Your task to perform on an android device: open app "Grab" (install if not already installed) Image 0: 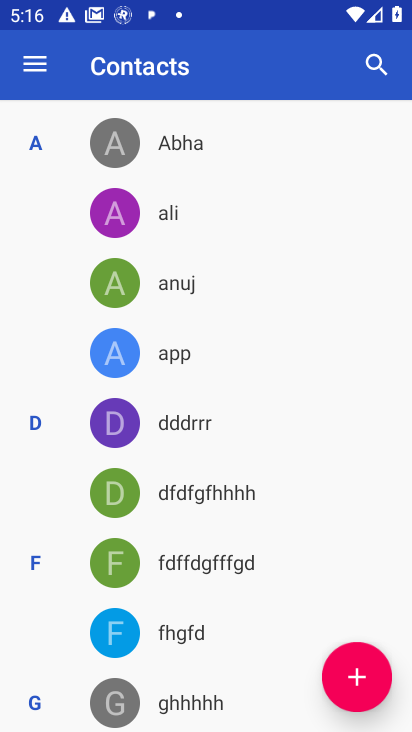
Step 0: press home button
Your task to perform on an android device: open app "Grab" (install if not already installed) Image 1: 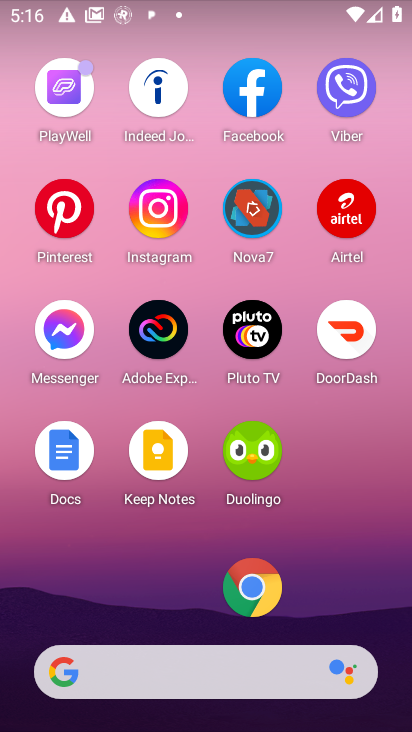
Step 1: drag from (125, 601) to (146, 122)
Your task to perform on an android device: open app "Grab" (install if not already installed) Image 2: 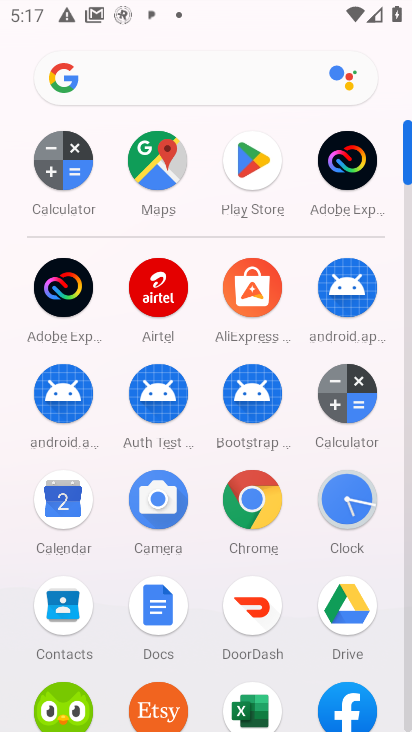
Step 2: click (260, 150)
Your task to perform on an android device: open app "Grab" (install if not already installed) Image 3: 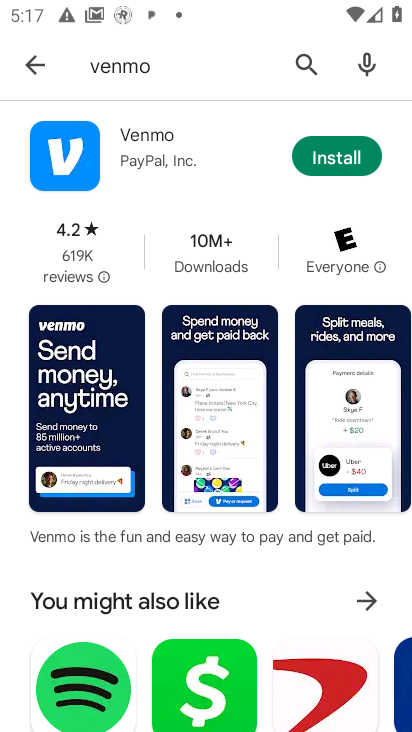
Step 3: click (316, 69)
Your task to perform on an android device: open app "Grab" (install if not already installed) Image 4: 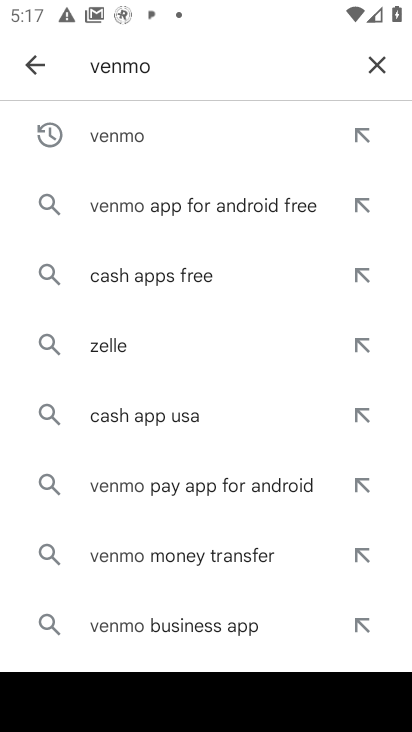
Step 4: click (368, 74)
Your task to perform on an android device: open app "Grab" (install if not already installed) Image 5: 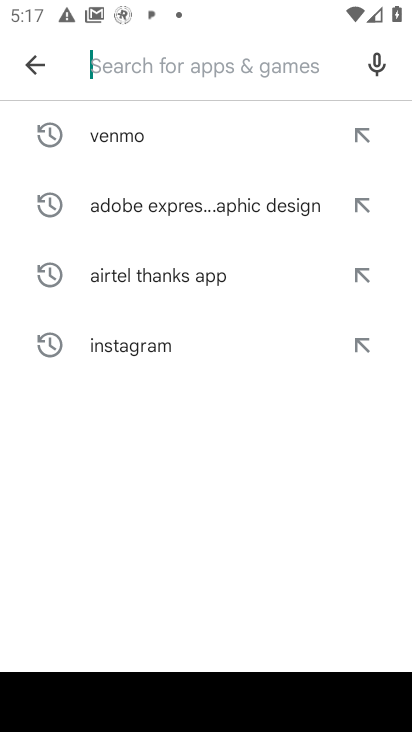
Step 5: type "Grab"
Your task to perform on an android device: open app "Grab" (install if not already installed) Image 6: 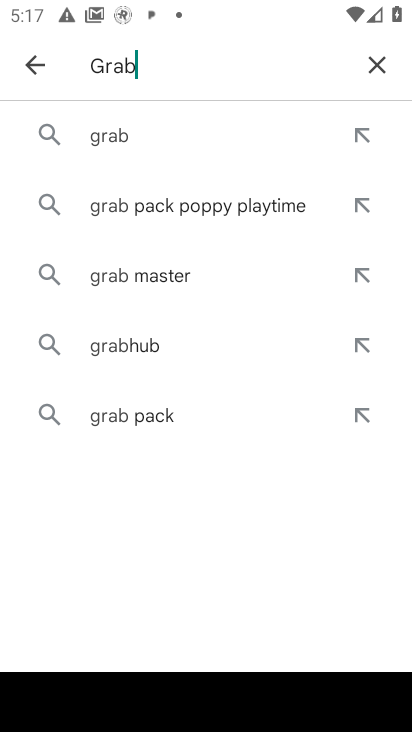
Step 6: type ""
Your task to perform on an android device: open app "Grab" (install if not already installed) Image 7: 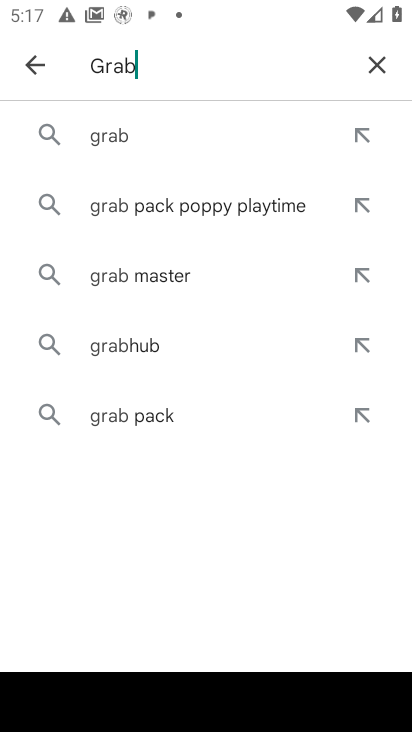
Step 7: click (198, 128)
Your task to perform on an android device: open app "Grab" (install if not already installed) Image 8: 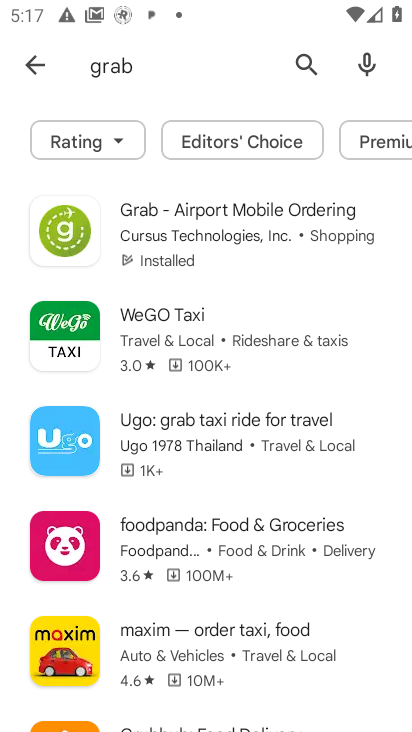
Step 8: click (183, 244)
Your task to perform on an android device: open app "Grab" (install if not already installed) Image 9: 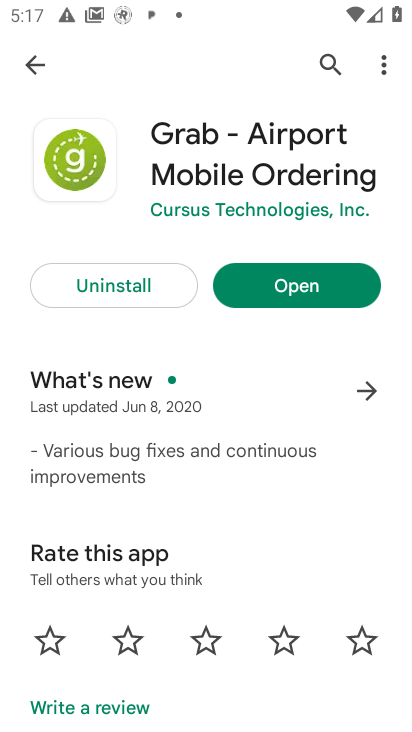
Step 9: click (263, 292)
Your task to perform on an android device: open app "Grab" (install if not already installed) Image 10: 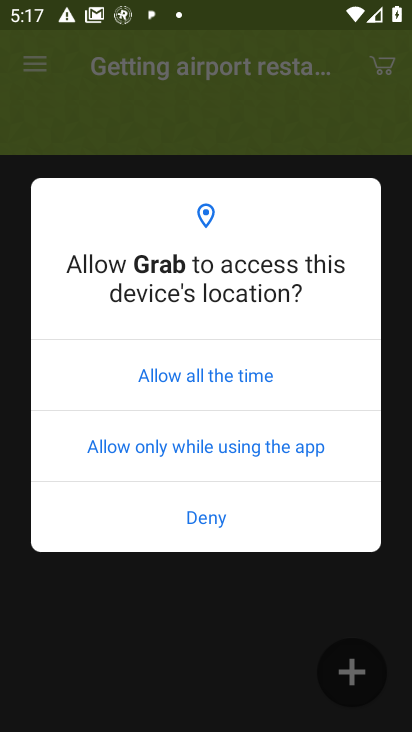
Step 10: task complete